Your task to perform on an android device: remove spam from my inbox in the gmail app Image 0: 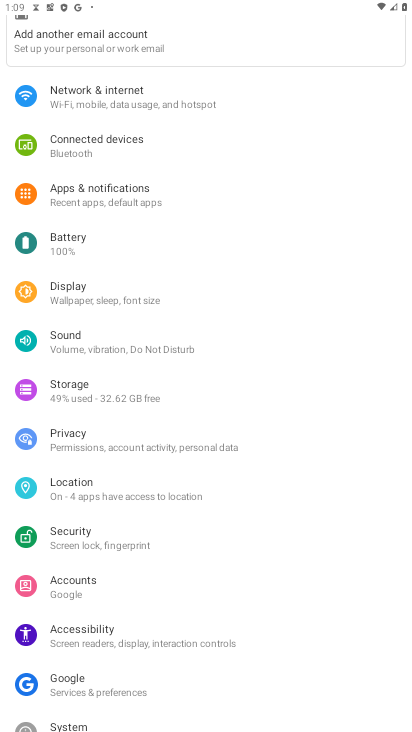
Step 0: press home button
Your task to perform on an android device: remove spam from my inbox in the gmail app Image 1: 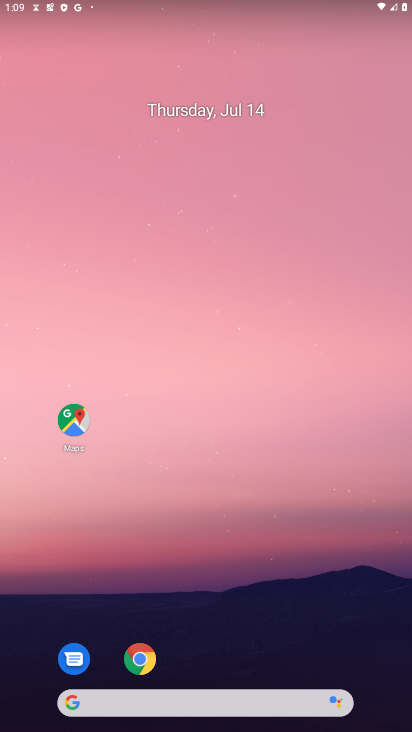
Step 1: drag from (101, 578) to (340, 22)
Your task to perform on an android device: remove spam from my inbox in the gmail app Image 2: 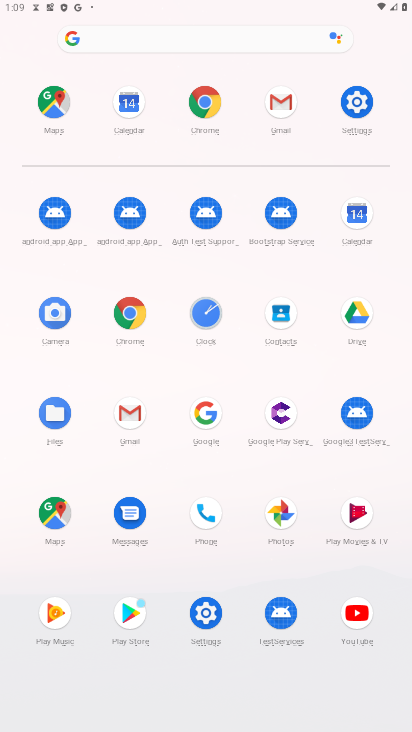
Step 2: click (134, 433)
Your task to perform on an android device: remove spam from my inbox in the gmail app Image 3: 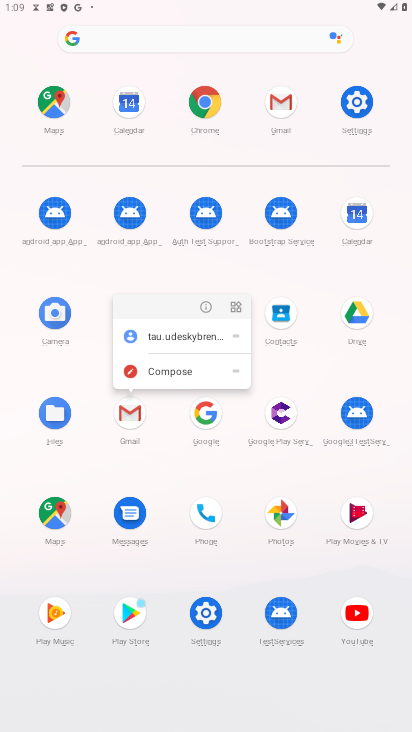
Step 3: click (118, 409)
Your task to perform on an android device: remove spam from my inbox in the gmail app Image 4: 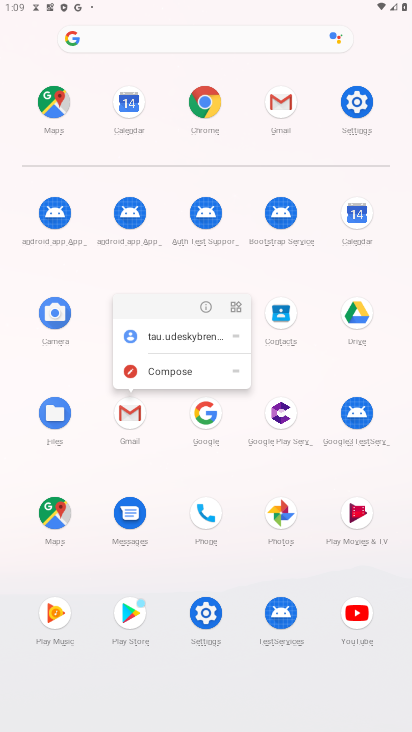
Step 4: click (131, 420)
Your task to perform on an android device: remove spam from my inbox in the gmail app Image 5: 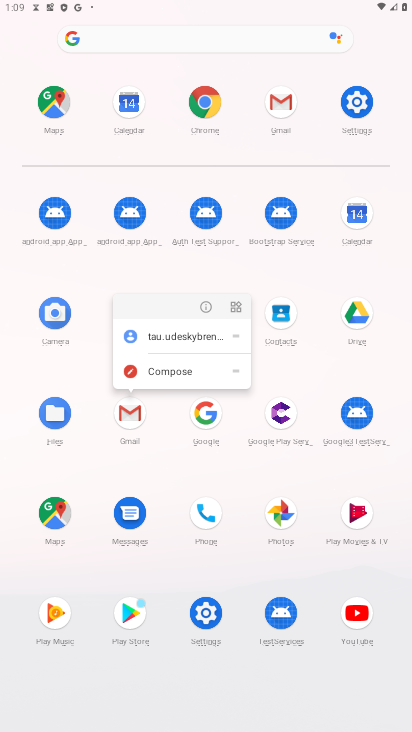
Step 5: click (122, 410)
Your task to perform on an android device: remove spam from my inbox in the gmail app Image 6: 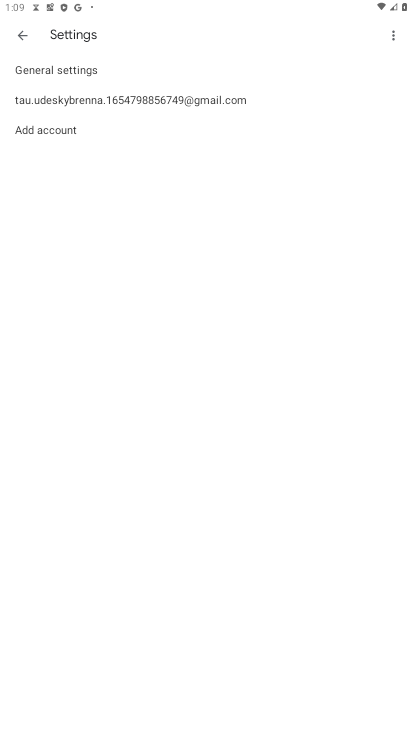
Step 6: click (16, 25)
Your task to perform on an android device: remove spam from my inbox in the gmail app Image 7: 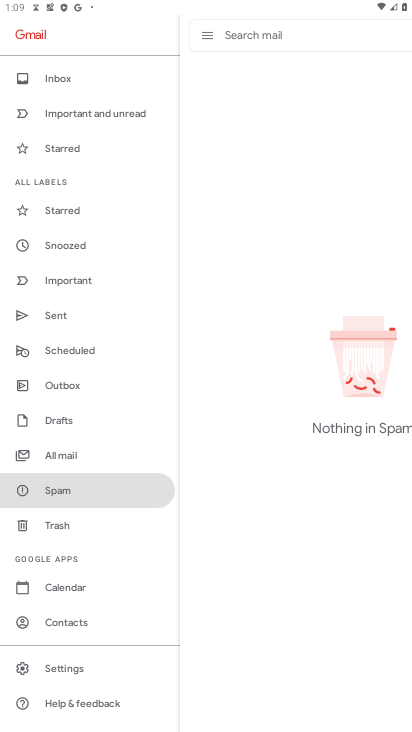
Step 7: click (84, 490)
Your task to perform on an android device: remove spam from my inbox in the gmail app Image 8: 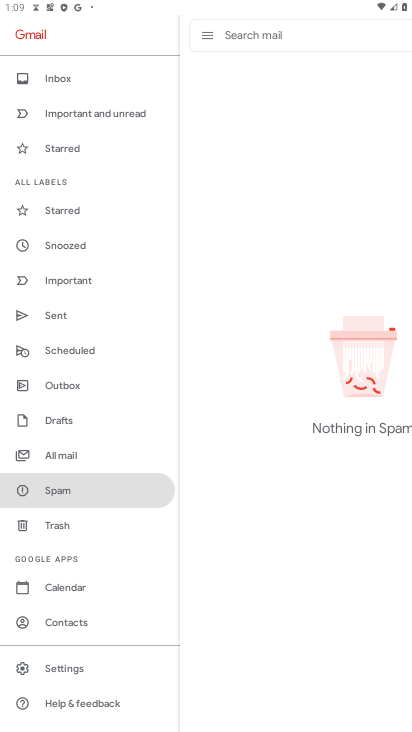
Step 8: task complete